Your task to perform on an android device: Search for Italian restaurants on Maps Image 0: 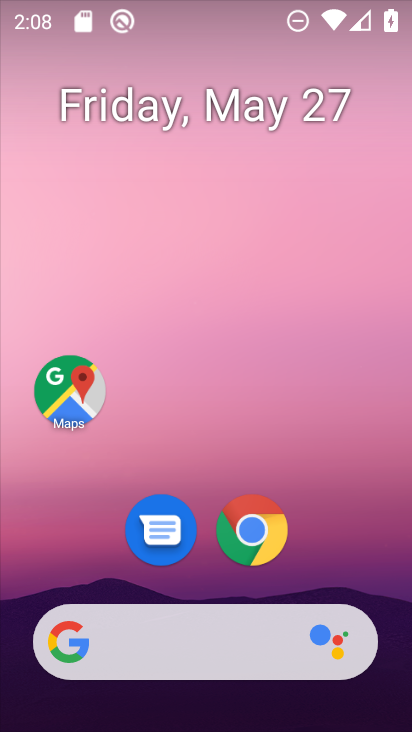
Step 0: click (62, 406)
Your task to perform on an android device: Search for Italian restaurants on Maps Image 1: 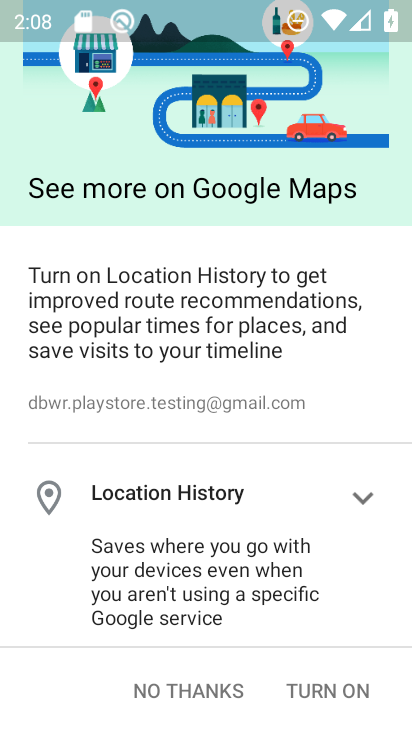
Step 1: click (214, 681)
Your task to perform on an android device: Search for Italian restaurants on Maps Image 2: 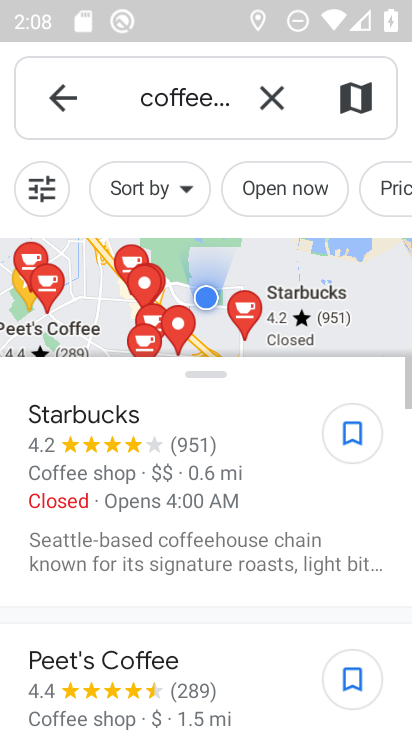
Step 2: click (264, 87)
Your task to perform on an android device: Search for Italian restaurants on Maps Image 3: 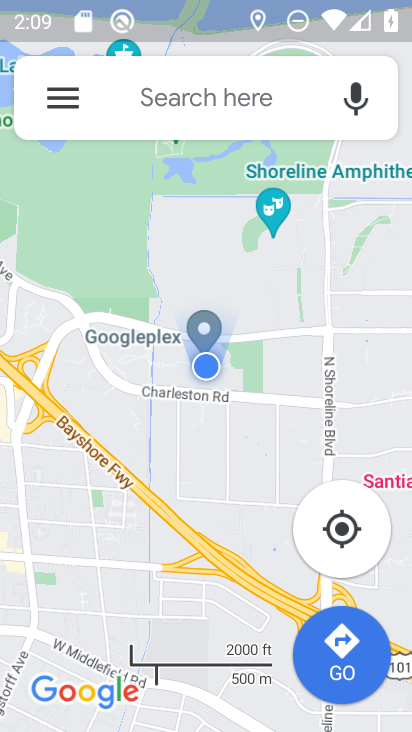
Step 3: click (190, 102)
Your task to perform on an android device: Search for Italian restaurants on Maps Image 4: 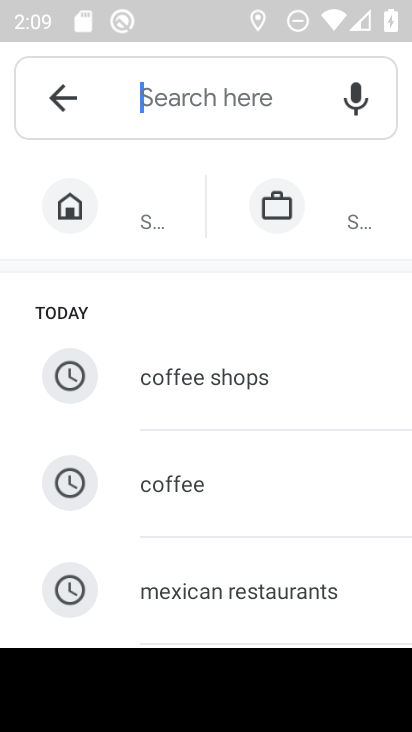
Step 4: type "italian restaurants"
Your task to perform on an android device: Search for Italian restaurants on Maps Image 5: 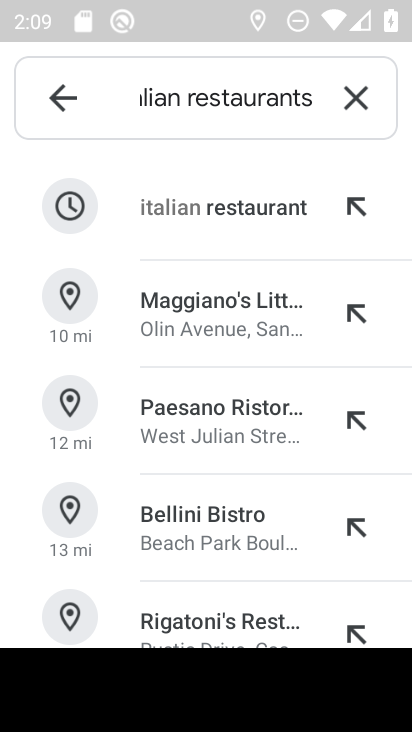
Step 5: click (282, 230)
Your task to perform on an android device: Search for Italian restaurants on Maps Image 6: 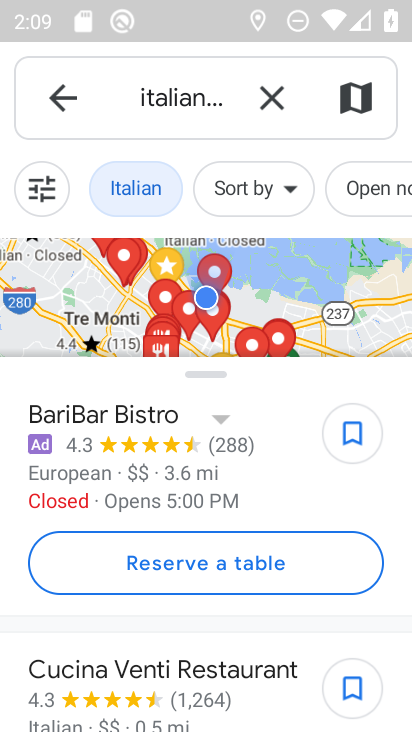
Step 6: task complete